Your task to perform on an android device: Open the web browser Image 0: 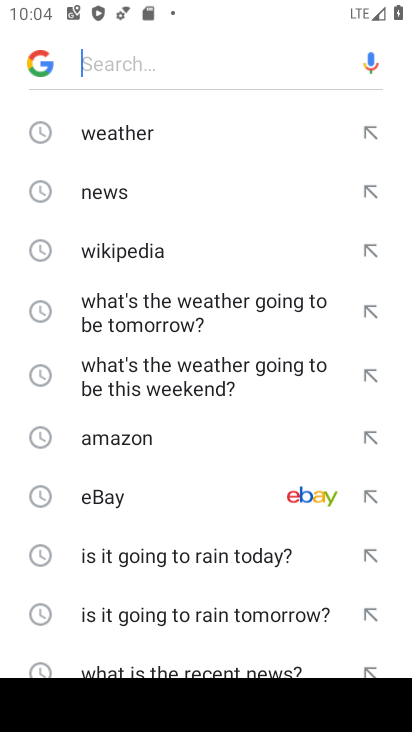
Step 0: press home button
Your task to perform on an android device: Open the web browser Image 1: 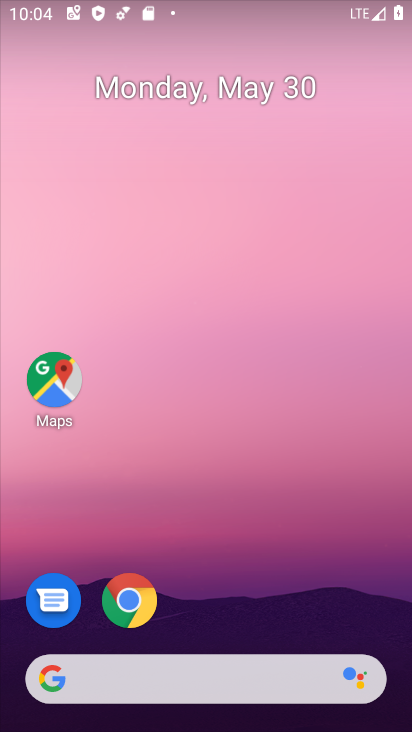
Step 1: click (140, 600)
Your task to perform on an android device: Open the web browser Image 2: 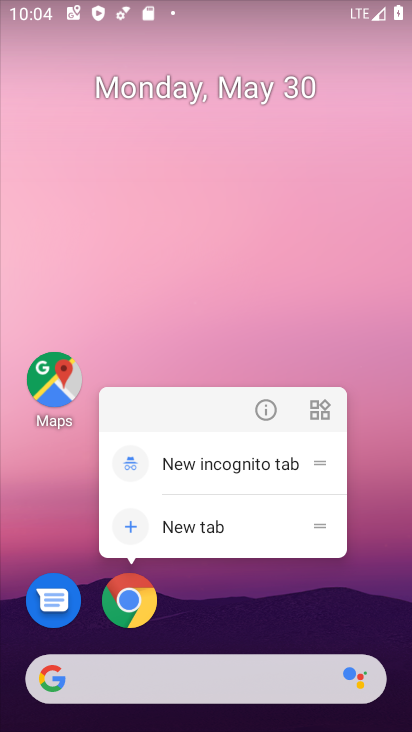
Step 2: click (137, 600)
Your task to perform on an android device: Open the web browser Image 3: 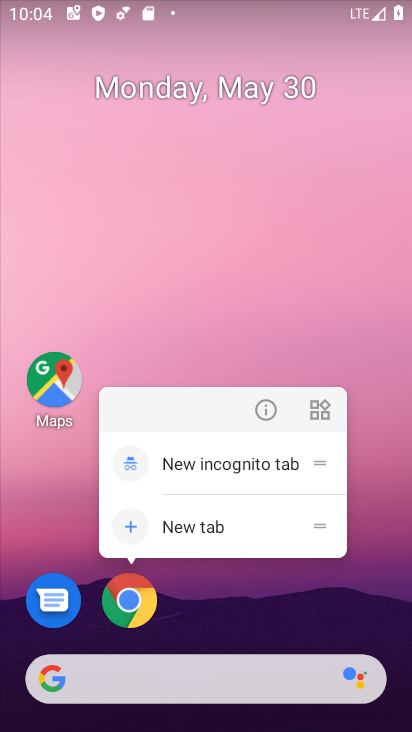
Step 3: click (146, 594)
Your task to perform on an android device: Open the web browser Image 4: 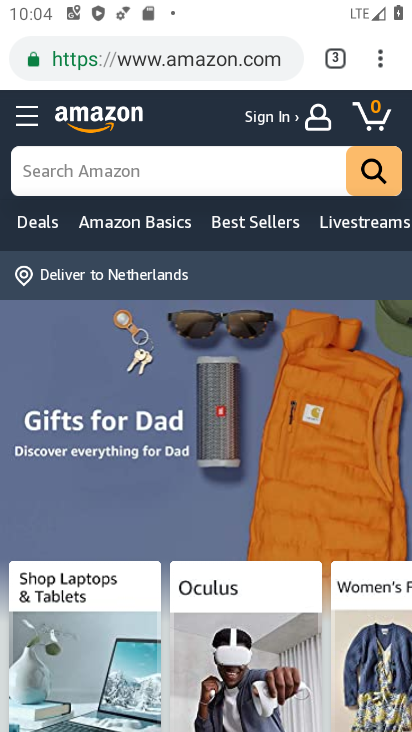
Step 4: click (344, 51)
Your task to perform on an android device: Open the web browser Image 5: 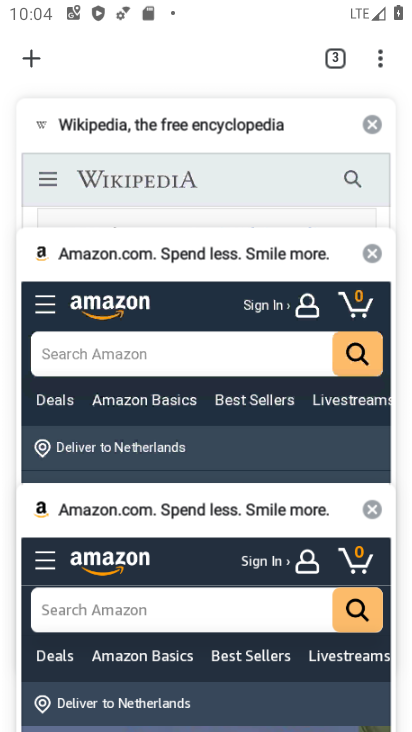
Step 5: click (34, 61)
Your task to perform on an android device: Open the web browser Image 6: 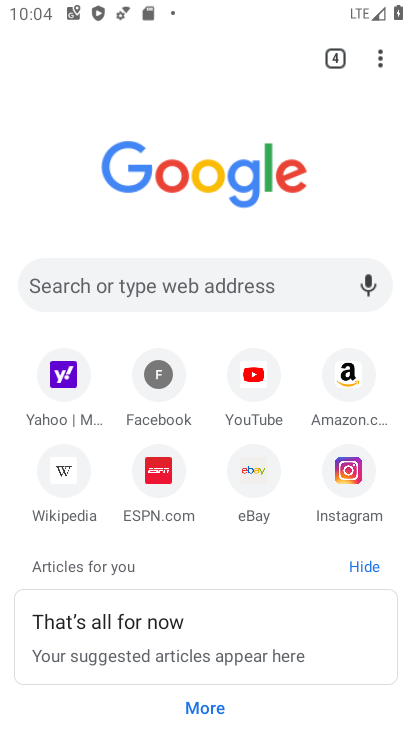
Step 6: task complete